Your task to perform on an android device: move a message to another label in the gmail app Image 0: 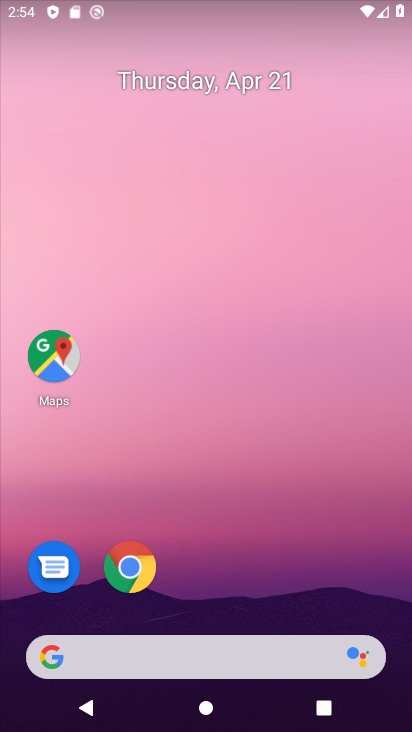
Step 0: drag from (345, 608) to (290, 142)
Your task to perform on an android device: move a message to another label in the gmail app Image 1: 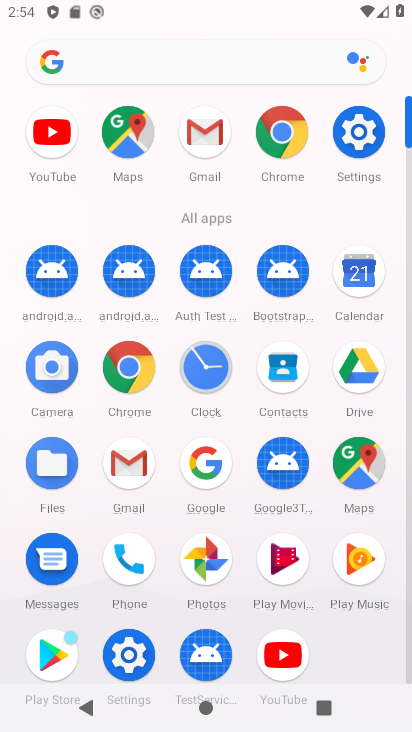
Step 1: click (200, 125)
Your task to perform on an android device: move a message to another label in the gmail app Image 2: 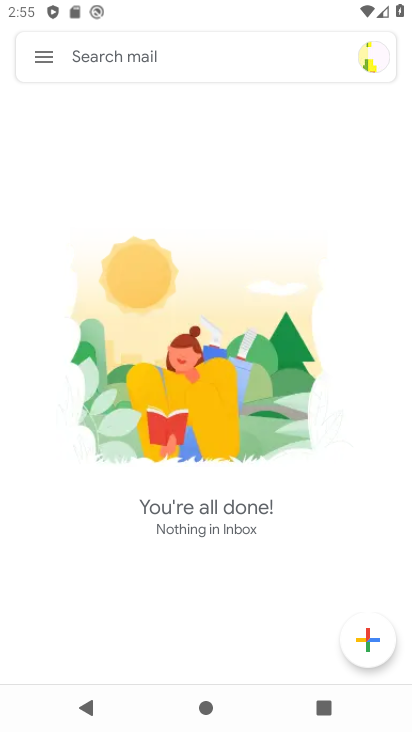
Step 2: task complete